Your task to perform on an android device: turn off sleep mode Image 0: 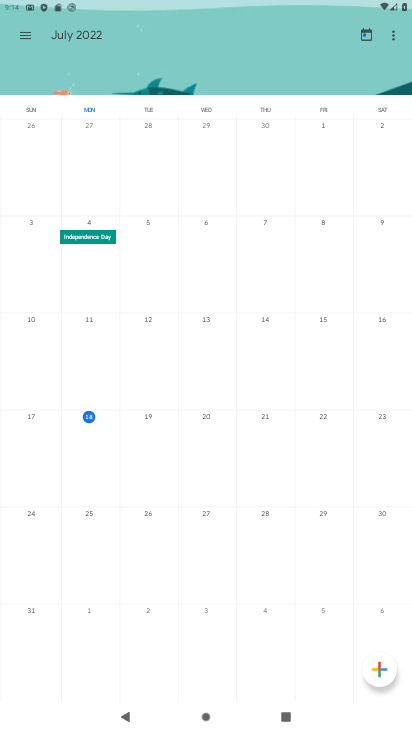
Step 0: press home button
Your task to perform on an android device: turn off sleep mode Image 1: 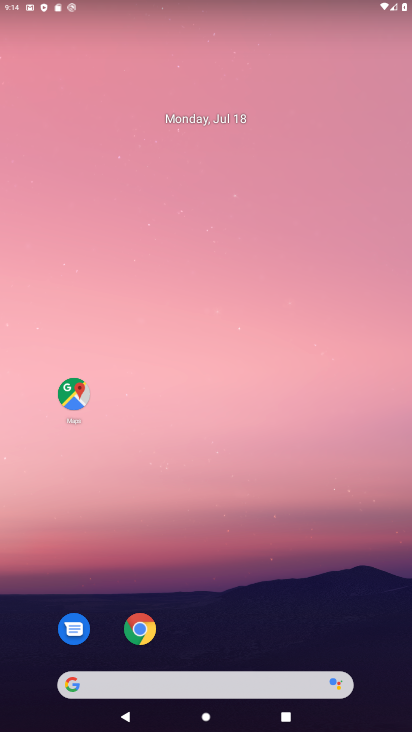
Step 1: drag from (267, 651) to (289, 105)
Your task to perform on an android device: turn off sleep mode Image 2: 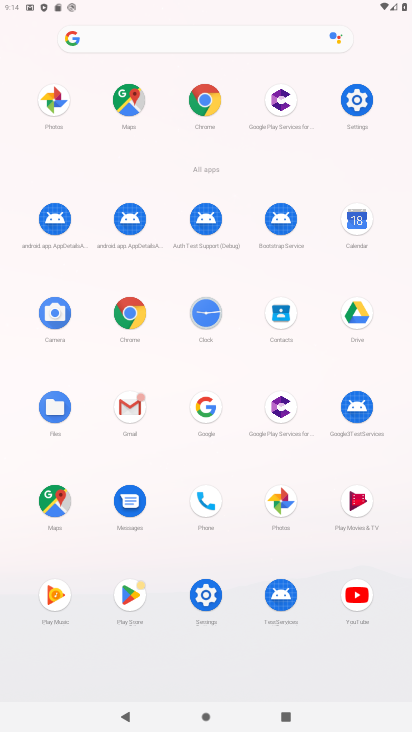
Step 2: click (188, 588)
Your task to perform on an android device: turn off sleep mode Image 3: 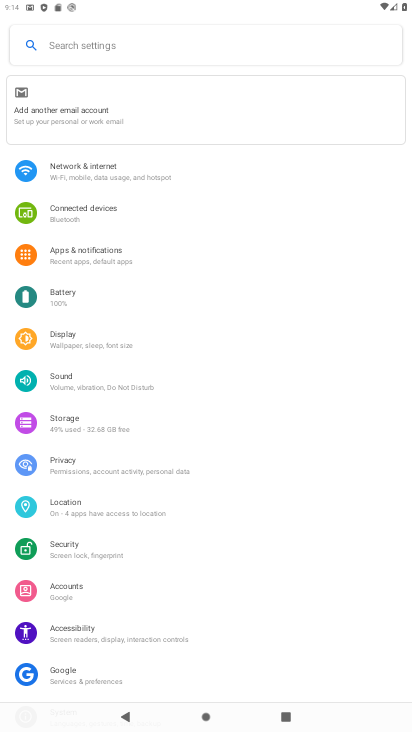
Step 3: click (70, 342)
Your task to perform on an android device: turn off sleep mode Image 4: 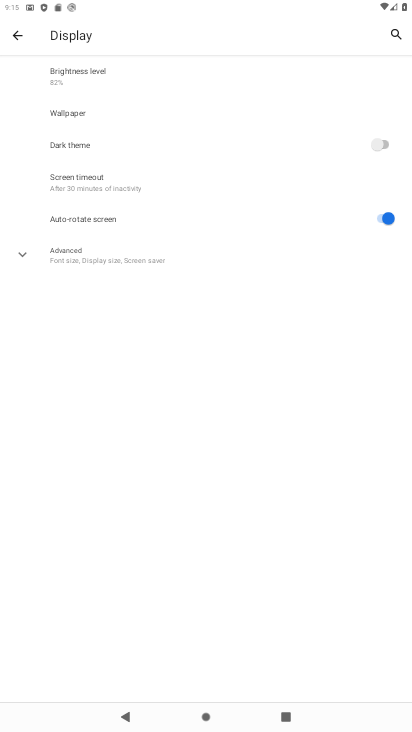
Step 4: click (150, 267)
Your task to perform on an android device: turn off sleep mode Image 5: 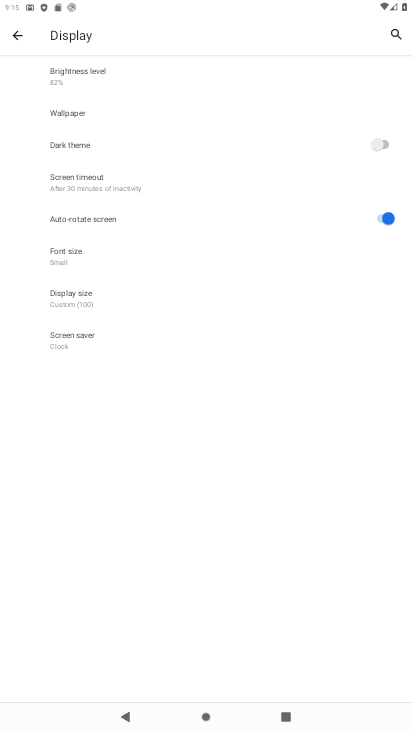
Step 5: task complete